Your task to perform on an android device: turn off wifi Image 0: 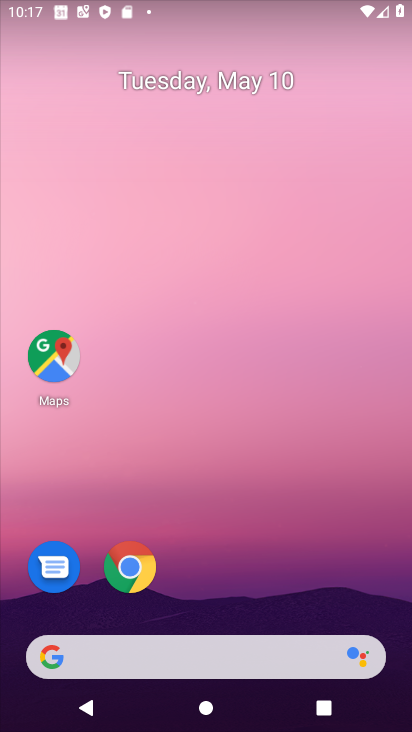
Step 0: press home button
Your task to perform on an android device: turn off wifi Image 1: 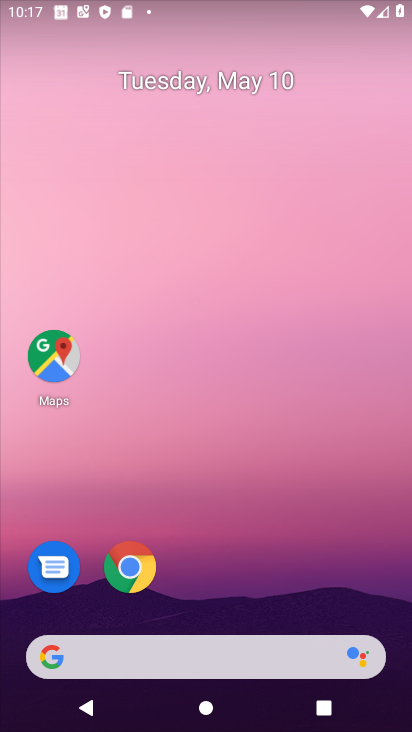
Step 1: drag from (19, 614) to (251, 208)
Your task to perform on an android device: turn off wifi Image 2: 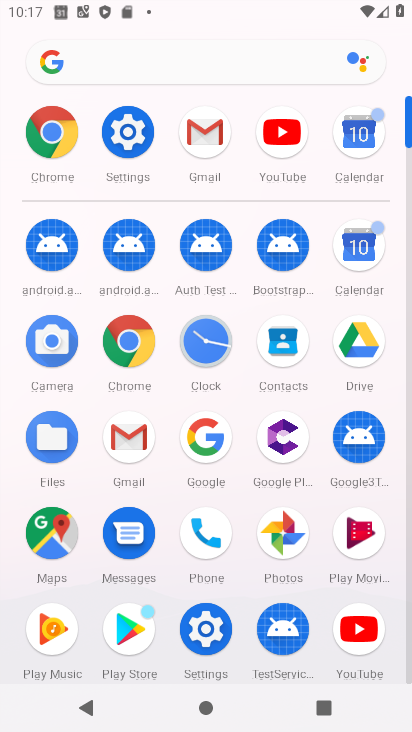
Step 2: click (123, 136)
Your task to perform on an android device: turn off wifi Image 3: 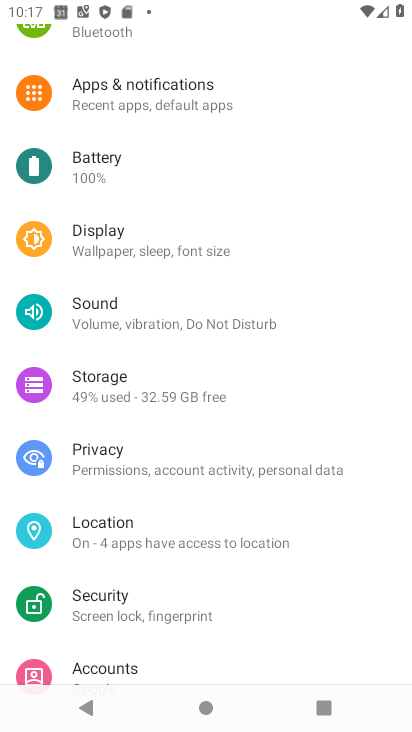
Step 3: drag from (106, 94) to (170, 530)
Your task to perform on an android device: turn off wifi Image 4: 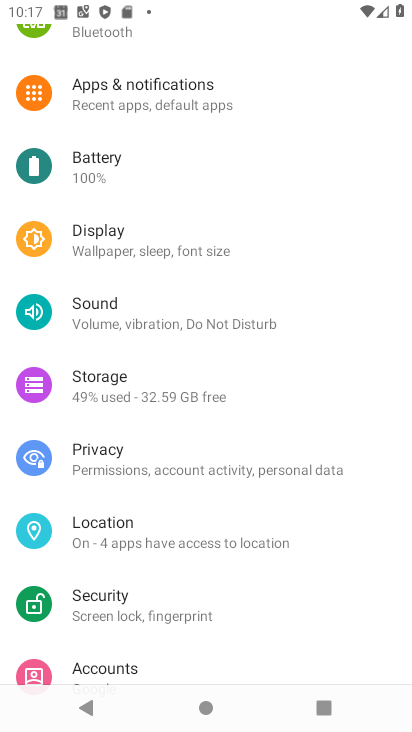
Step 4: drag from (142, 149) to (198, 665)
Your task to perform on an android device: turn off wifi Image 5: 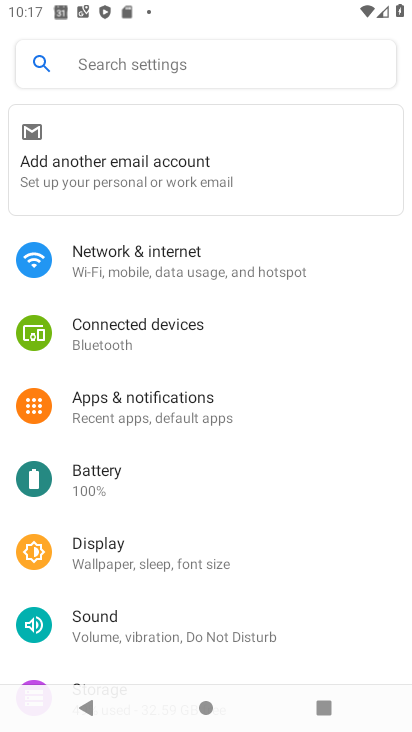
Step 5: click (133, 264)
Your task to perform on an android device: turn off wifi Image 6: 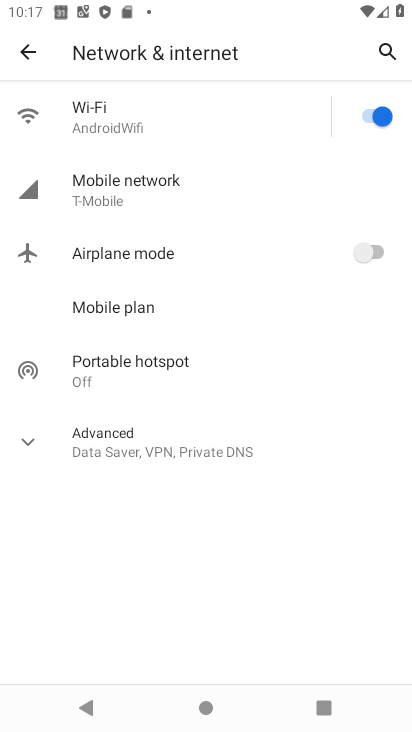
Step 6: click (391, 117)
Your task to perform on an android device: turn off wifi Image 7: 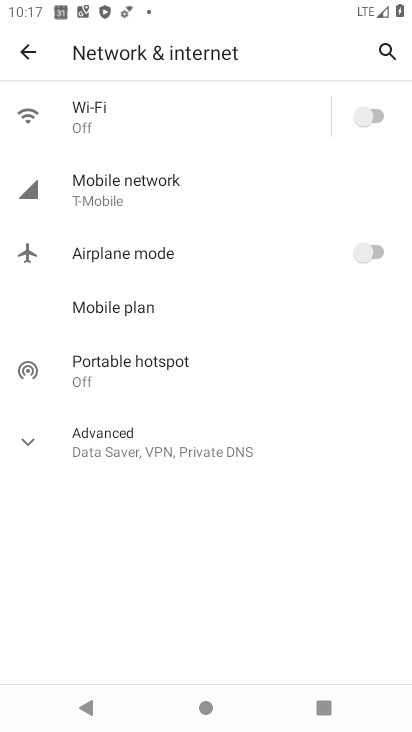
Step 7: task complete